Your task to perform on an android device: Search for vegetarian restaurants on Maps Image 0: 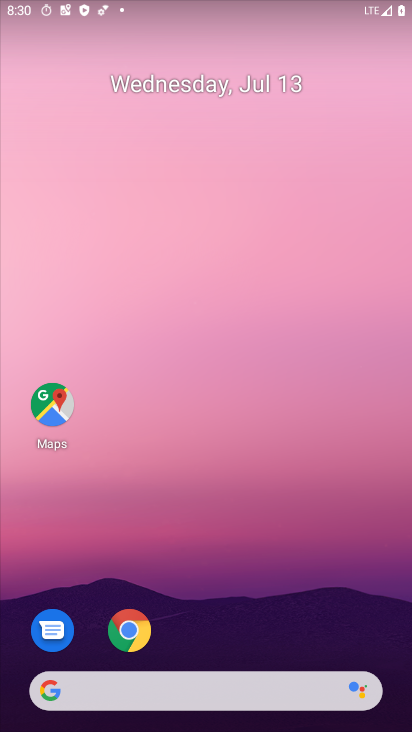
Step 0: drag from (264, 608) to (301, 178)
Your task to perform on an android device: Search for vegetarian restaurants on Maps Image 1: 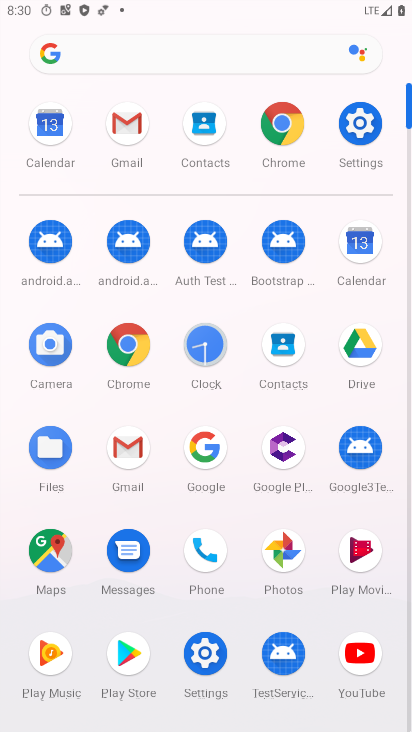
Step 1: click (43, 549)
Your task to perform on an android device: Search for vegetarian restaurants on Maps Image 2: 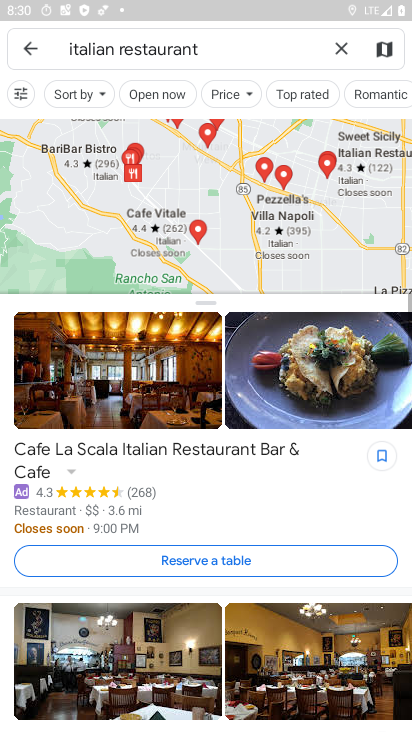
Step 2: press back button
Your task to perform on an android device: Search for vegetarian restaurants on Maps Image 3: 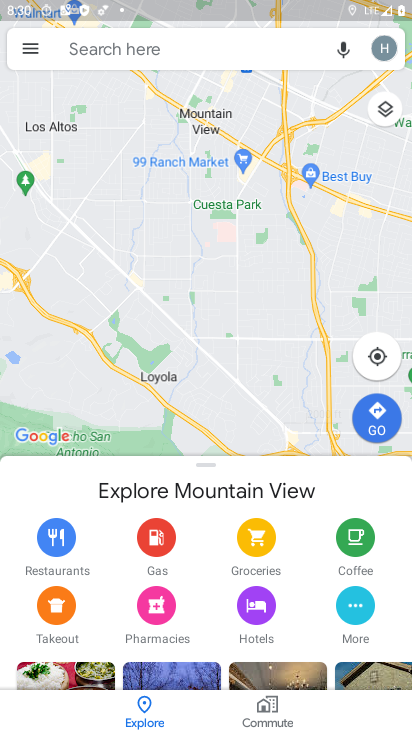
Step 3: click (185, 44)
Your task to perform on an android device: Search for vegetarian restaurants on Maps Image 4: 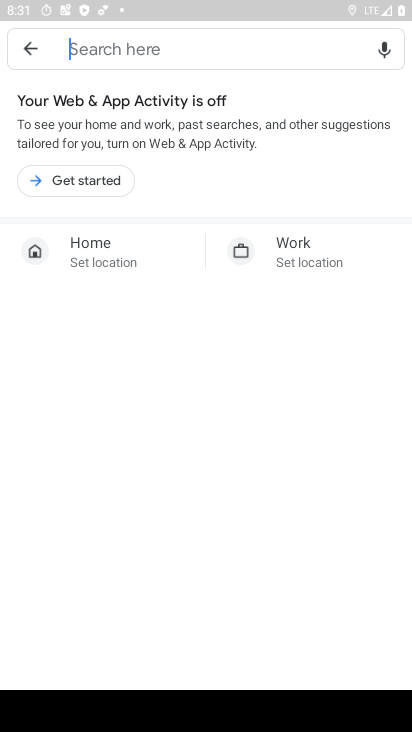
Step 4: type "vegetrain restajurants"
Your task to perform on an android device: Search for vegetarian restaurants on Maps Image 5: 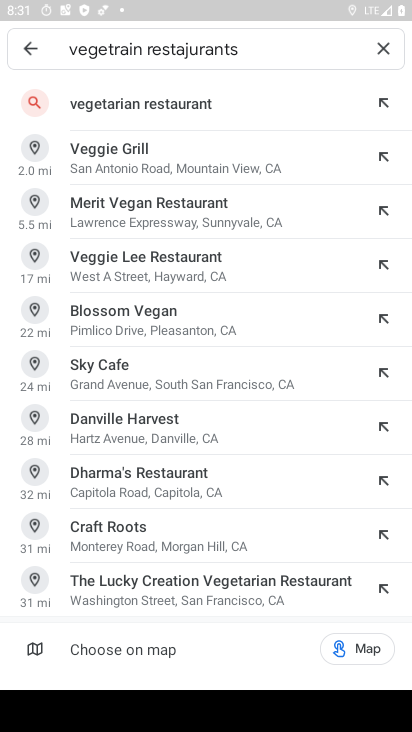
Step 5: click (237, 89)
Your task to perform on an android device: Search for vegetarian restaurants on Maps Image 6: 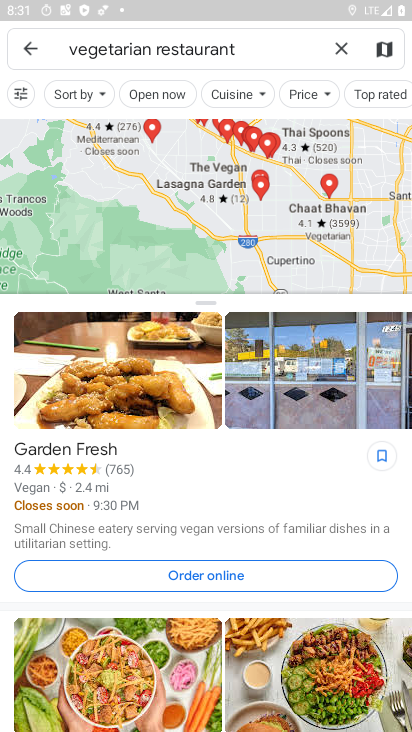
Step 6: task complete